Your task to perform on an android device: Go to eBay Image 0: 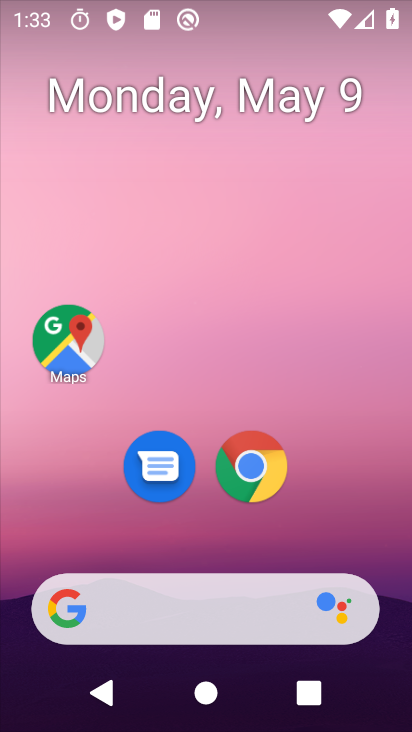
Step 0: click (247, 452)
Your task to perform on an android device: Go to eBay Image 1: 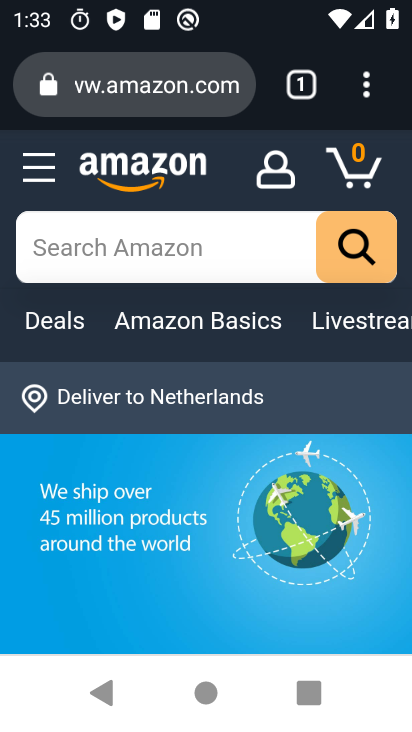
Step 1: click (167, 90)
Your task to perform on an android device: Go to eBay Image 2: 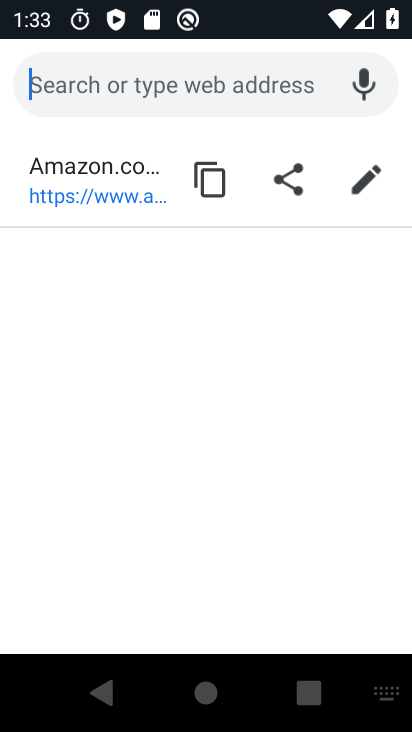
Step 2: type "ebay.com"
Your task to perform on an android device: Go to eBay Image 3: 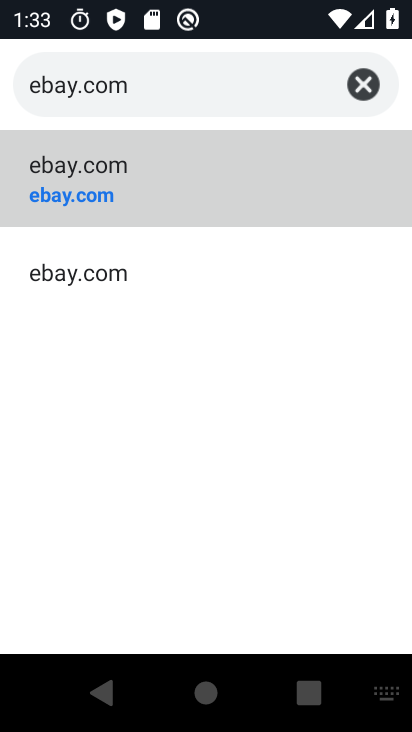
Step 3: click (177, 156)
Your task to perform on an android device: Go to eBay Image 4: 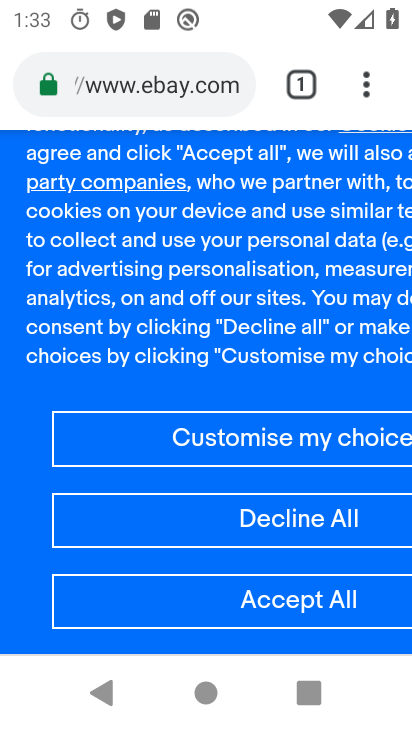
Step 4: task complete